Your task to perform on an android device: Open settings Image 0: 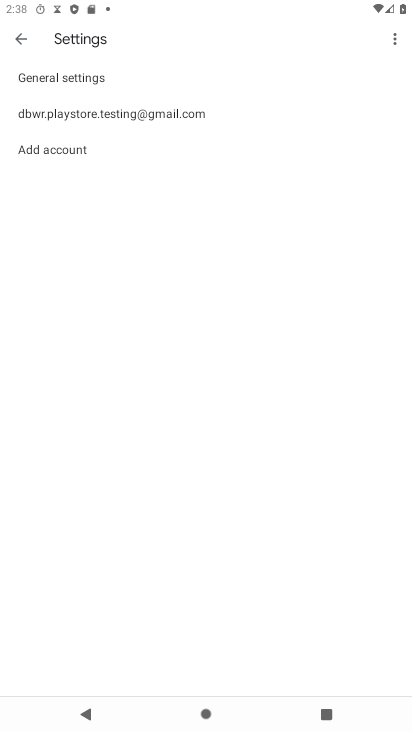
Step 0: press home button
Your task to perform on an android device: Open settings Image 1: 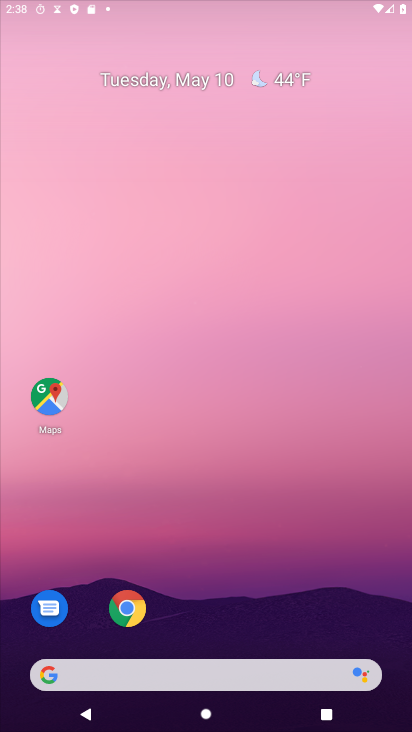
Step 1: drag from (259, 602) to (255, 3)
Your task to perform on an android device: Open settings Image 2: 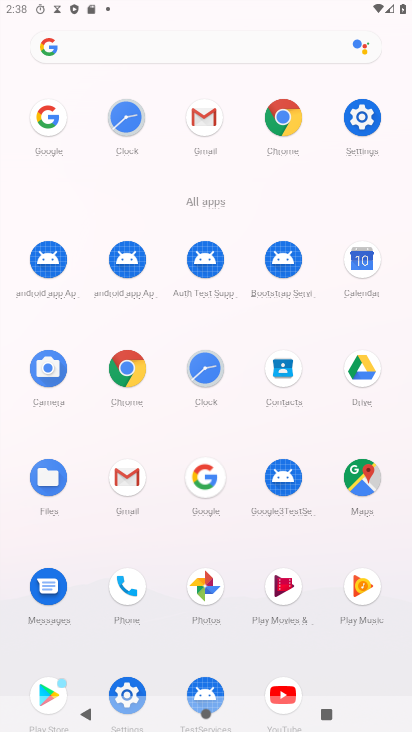
Step 2: click (362, 120)
Your task to perform on an android device: Open settings Image 3: 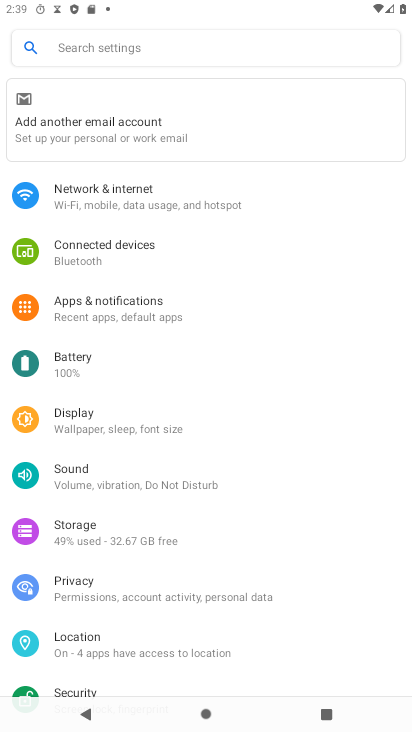
Step 3: task complete